Your task to perform on an android device: set default search engine in the chrome app Image 0: 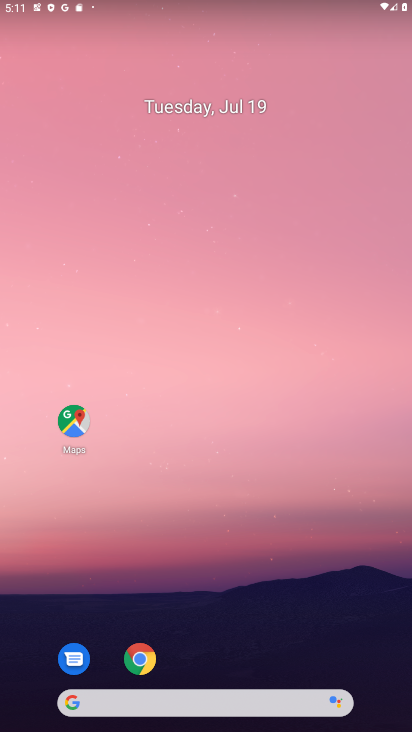
Step 0: drag from (232, 640) to (249, 159)
Your task to perform on an android device: set default search engine in the chrome app Image 1: 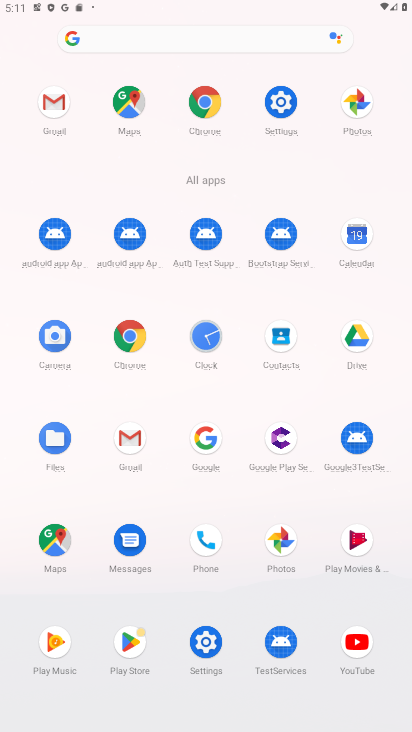
Step 1: click (203, 92)
Your task to perform on an android device: set default search engine in the chrome app Image 2: 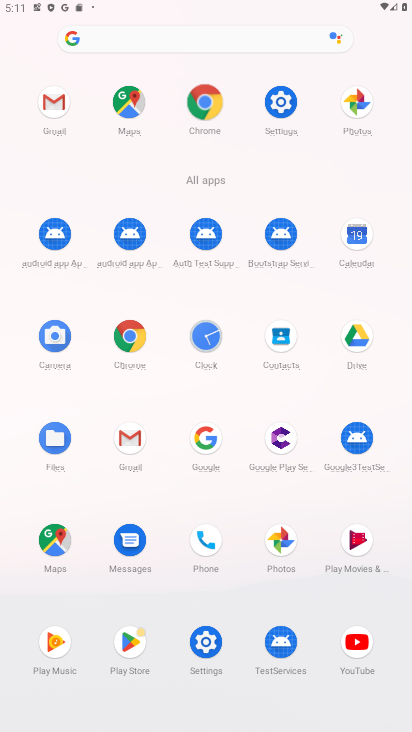
Step 2: click (203, 92)
Your task to perform on an android device: set default search engine in the chrome app Image 3: 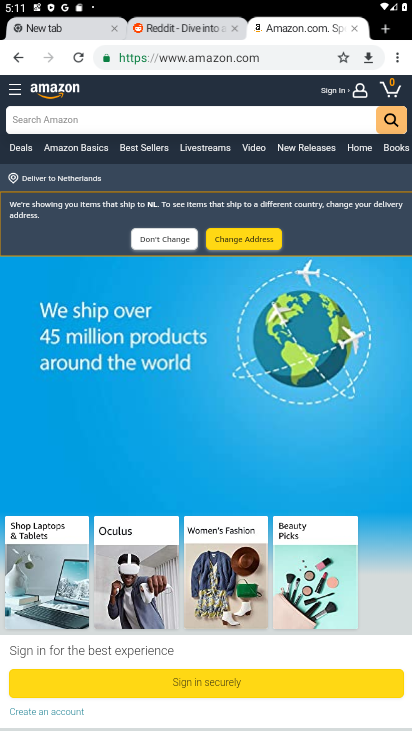
Step 3: drag from (388, 59) to (286, 381)
Your task to perform on an android device: set default search engine in the chrome app Image 4: 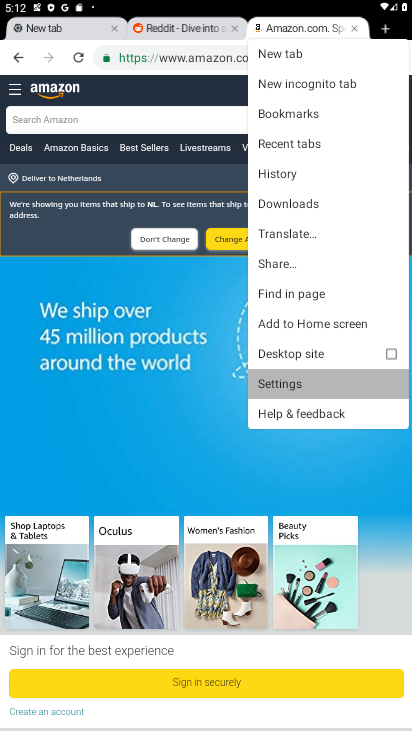
Step 4: click (297, 378)
Your task to perform on an android device: set default search engine in the chrome app Image 5: 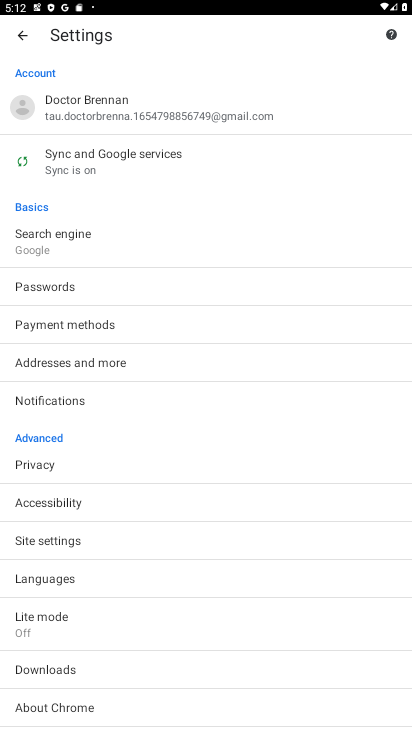
Step 5: click (39, 218)
Your task to perform on an android device: set default search engine in the chrome app Image 6: 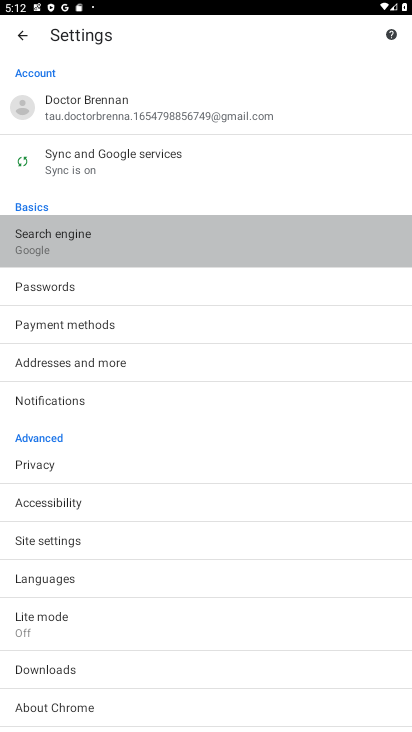
Step 6: click (42, 231)
Your task to perform on an android device: set default search engine in the chrome app Image 7: 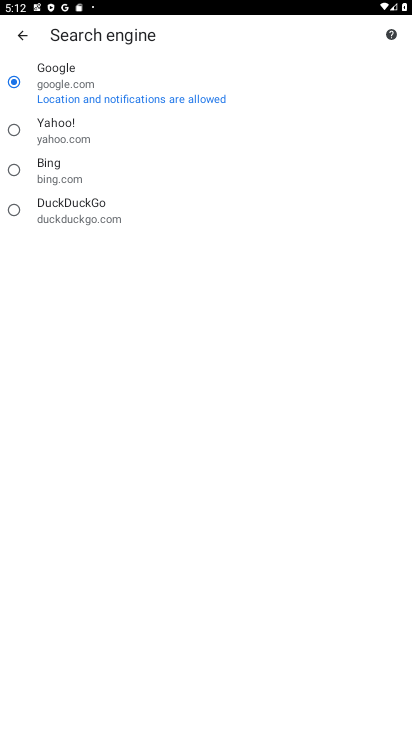
Step 7: click (12, 144)
Your task to perform on an android device: set default search engine in the chrome app Image 8: 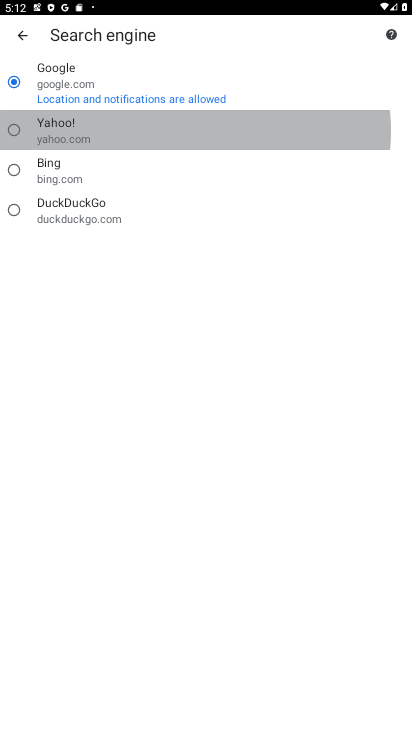
Step 8: click (12, 144)
Your task to perform on an android device: set default search engine in the chrome app Image 9: 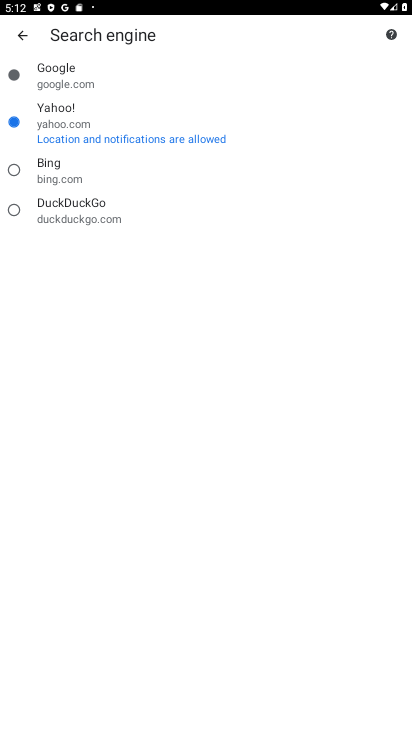
Step 9: click (12, 144)
Your task to perform on an android device: set default search engine in the chrome app Image 10: 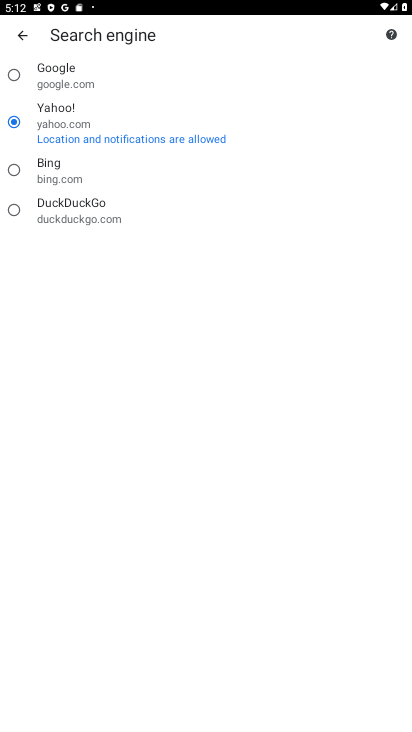
Step 10: task complete